Your task to perform on an android device: move an email to a new category in the gmail app Image 0: 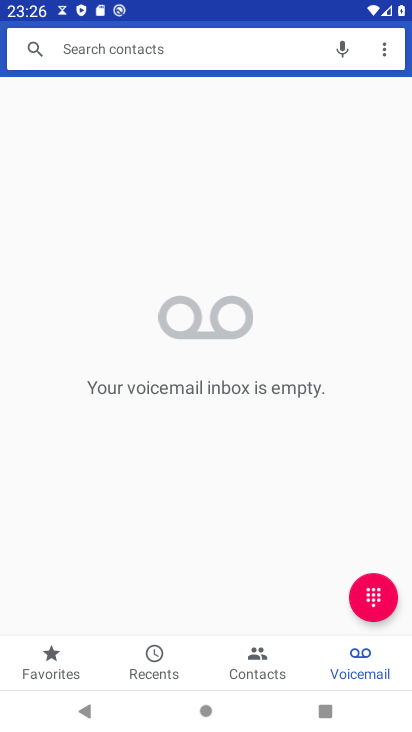
Step 0: press home button
Your task to perform on an android device: move an email to a new category in the gmail app Image 1: 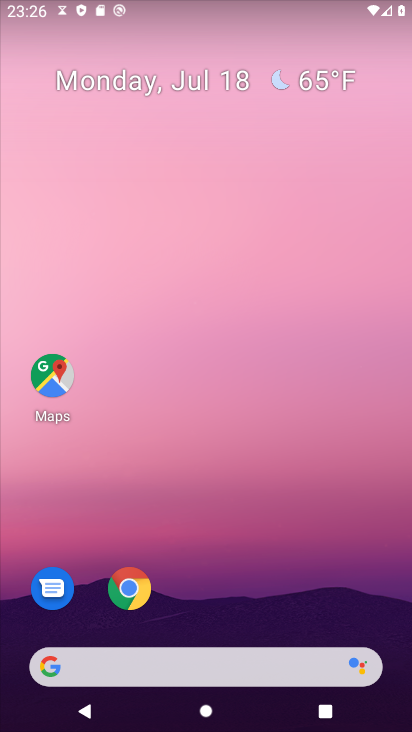
Step 1: drag from (313, 579) to (339, 120)
Your task to perform on an android device: move an email to a new category in the gmail app Image 2: 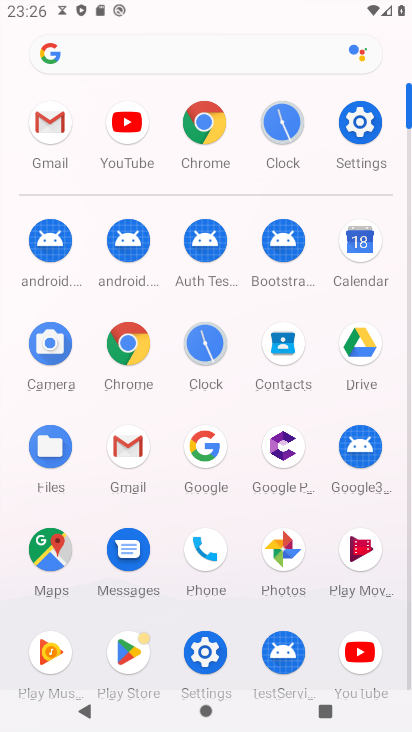
Step 2: click (53, 119)
Your task to perform on an android device: move an email to a new category in the gmail app Image 3: 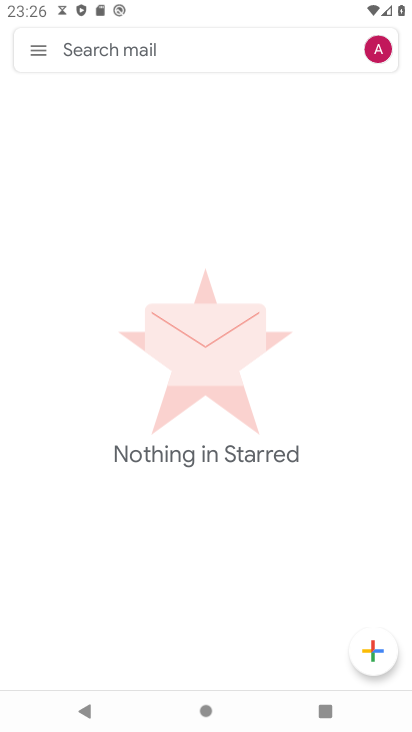
Step 3: click (29, 47)
Your task to perform on an android device: move an email to a new category in the gmail app Image 4: 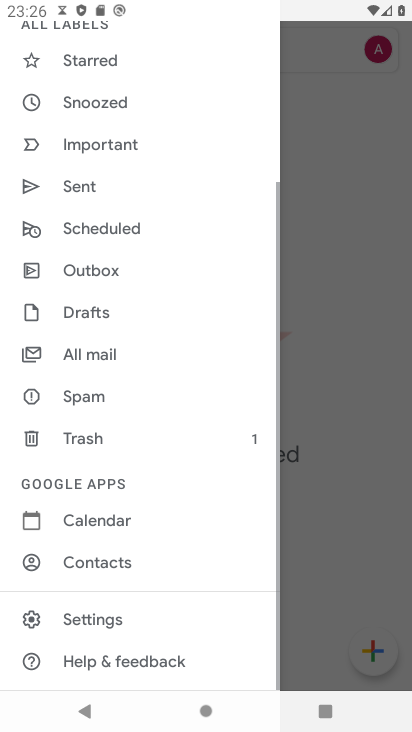
Step 4: click (80, 356)
Your task to perform on an android device: move an email to a new category in the gmail app Image 5: 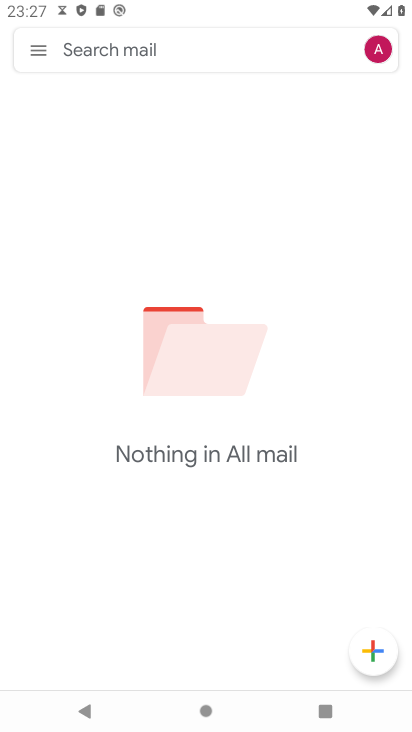
Step 5: task complete